Your task to perform on an android device: Open Yahoo.com Image 0: 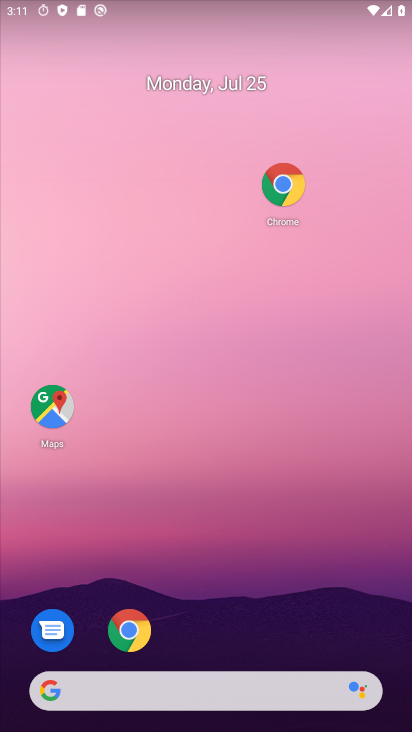
Step 0: drag from (269, 587) to (269, 255)
Your task to perform on an android device: Open Yahoo.com Image 1: 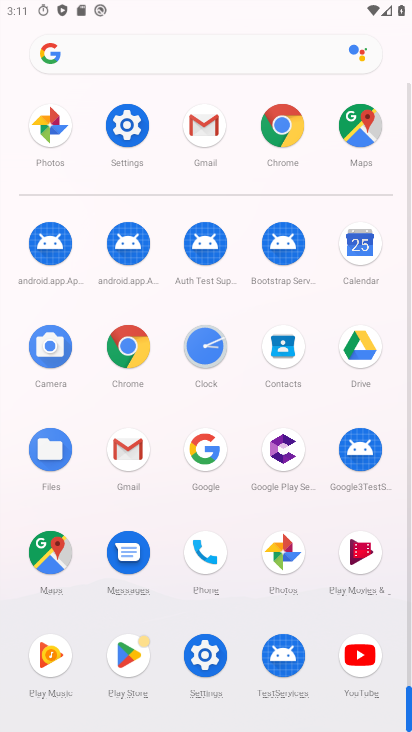
Step 1: click (289, 106)
Your task to perform on an android device: Open Yahoo.com Image 2: 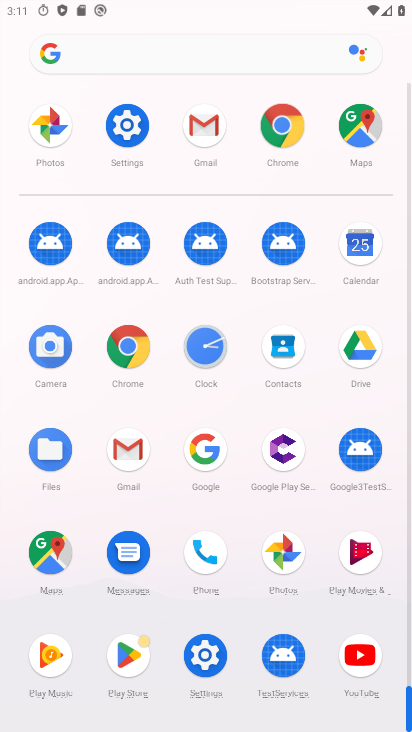
Step 2: click (279, 122)
Your task to perform on an android device: Open Yahoo.com Image 3: 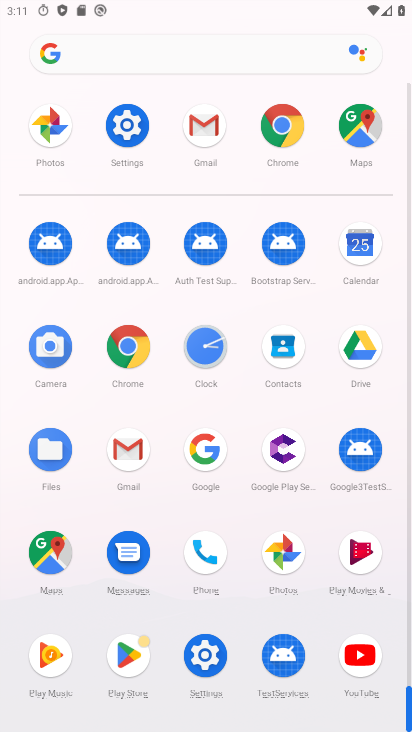
Step 3: click (279, 120)
Your task to perform on an android device: Open Yahoo.com Image 4: 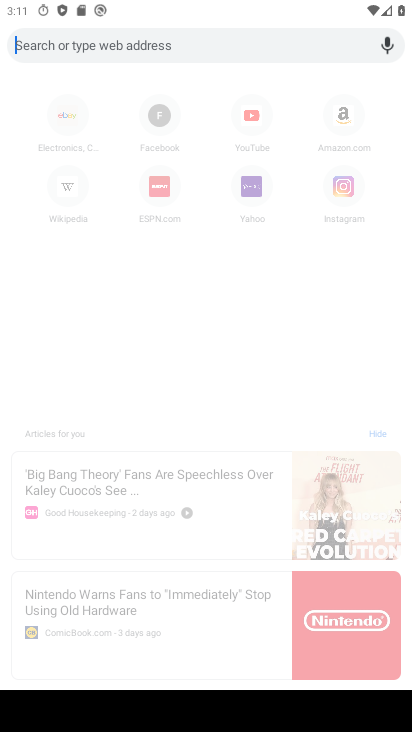
Step 4: click (251, 181)
Your task to perform on an android device: Open Yahoo.com Image 5: 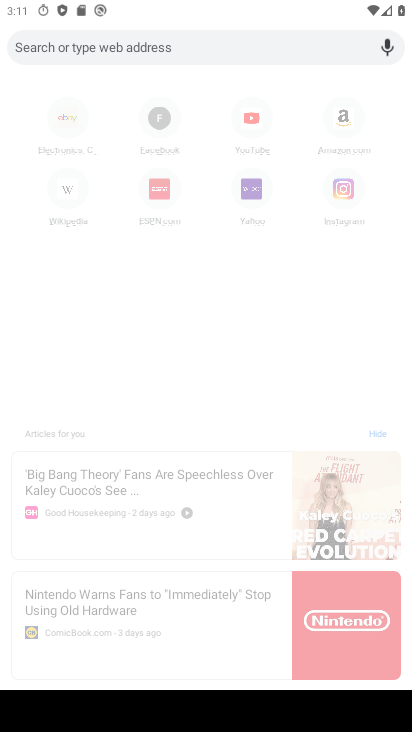
Step 5: click (253, 182)
Your task to perform on an android device: Open Yahoo.com Image 6: 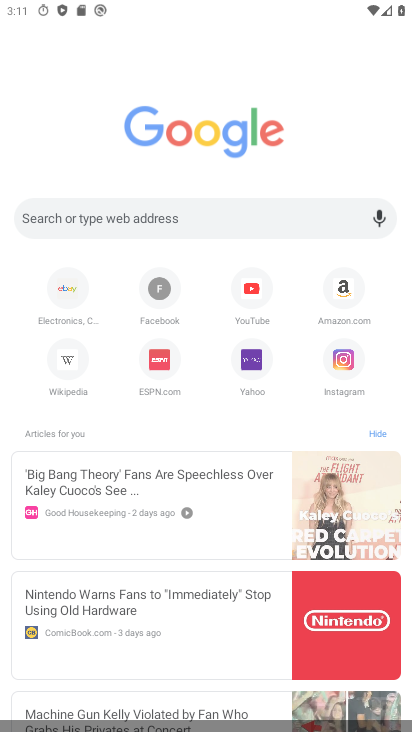
Step 6: click (253, 184)
Your task to perform on an android device: Open Yahoo.com Image 7: 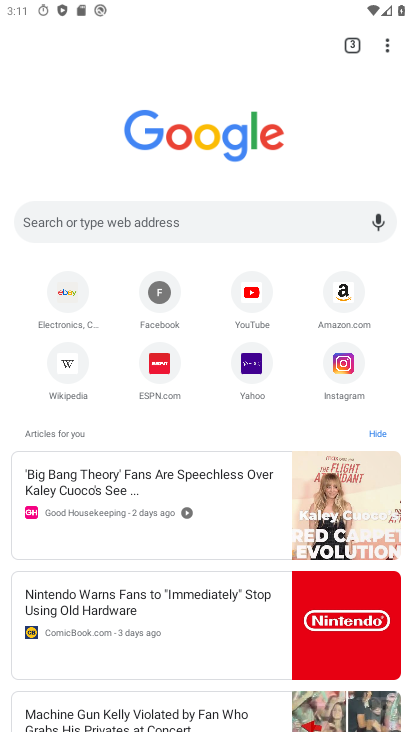
Step 7: click (251, 357)
Your task to perform on an android device: Open Yahoo.com Image 8: 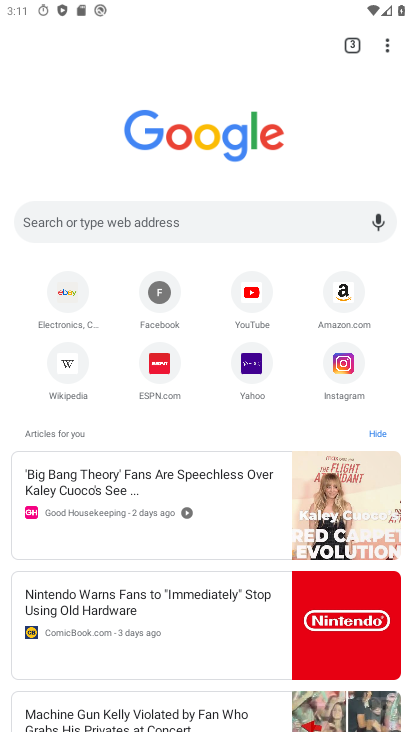
Step 8: click (251, 353)
Your task to perform on an android device: Open Yahoo.com Image 9: 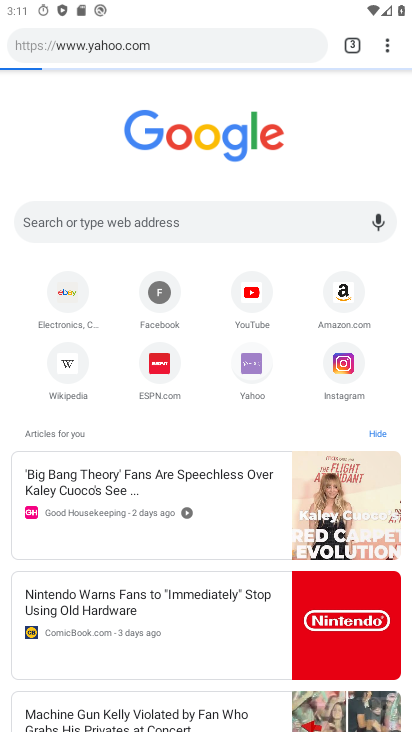
Step 9: click (257, 349)
Your task to perform on an android device: Open Yahoo.com Image 10: 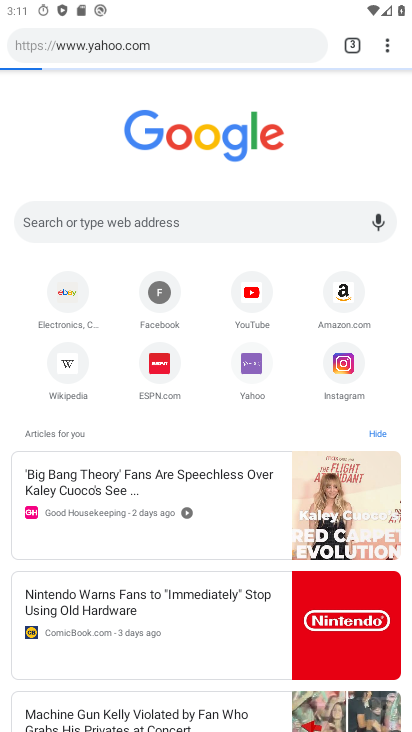
Step 10: click (266, 346)
Your task to perform on an android device: Open Yahoo.com Image 11: 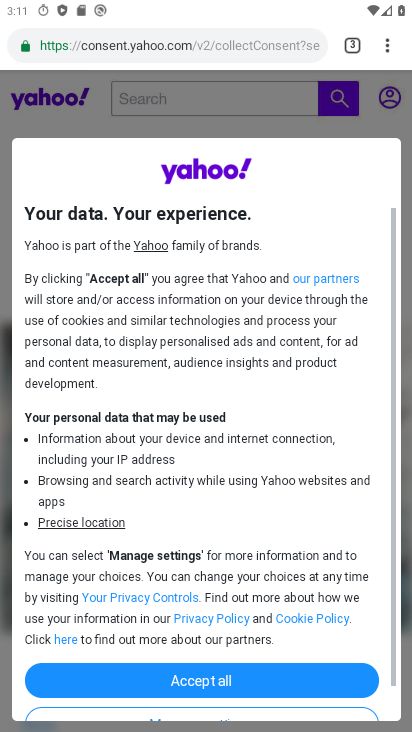
Step 11: task complete